Your task to perform on an android device: Search for sushi restaurants on Maps Image 0: 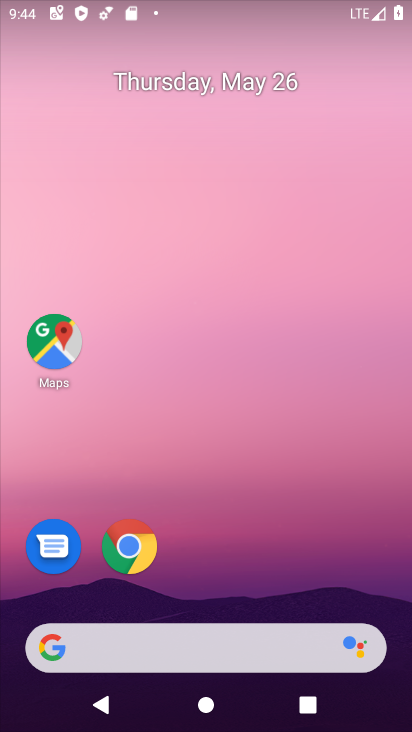
Step 0: drag from (411, 560) to (291, 167)
Your task to perform on an android device: Search for sushi restaurants on Maps Image 1: 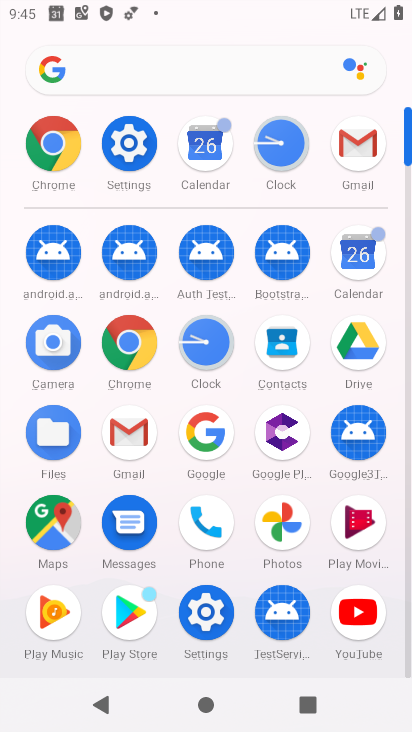
Step 1: click (62, 541)
Your task to perform on an android device: Search for sushi restaurants on Maps Image 2: 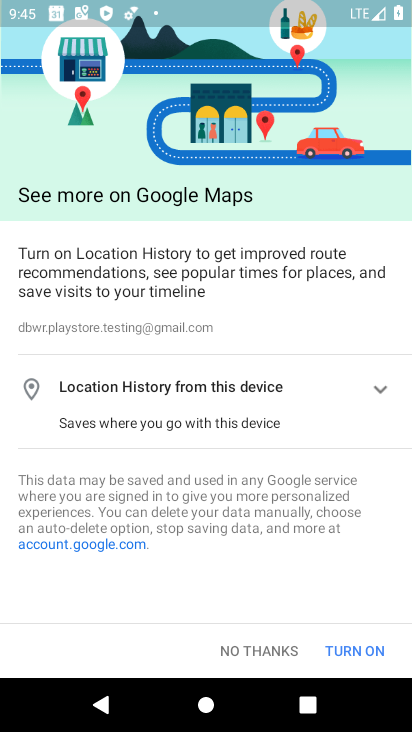
Step 2: click (255, 649)
Your task to perform on an android device: Search for sushi restaurants on Maps Image 3: 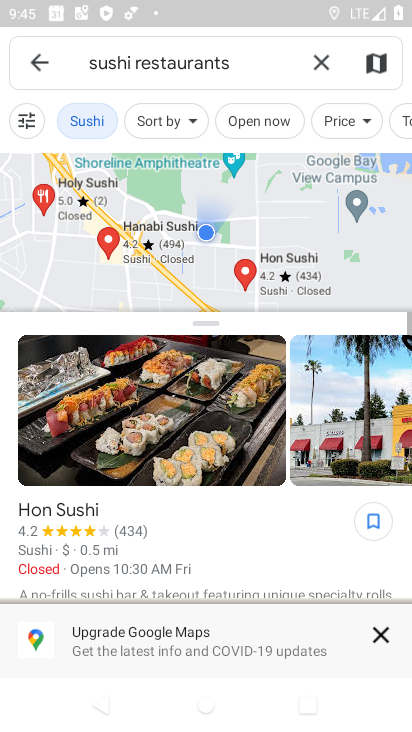
Step 3: task complete